Your task to perform on an android device: choose inbox layout in the gmail app Image 0: 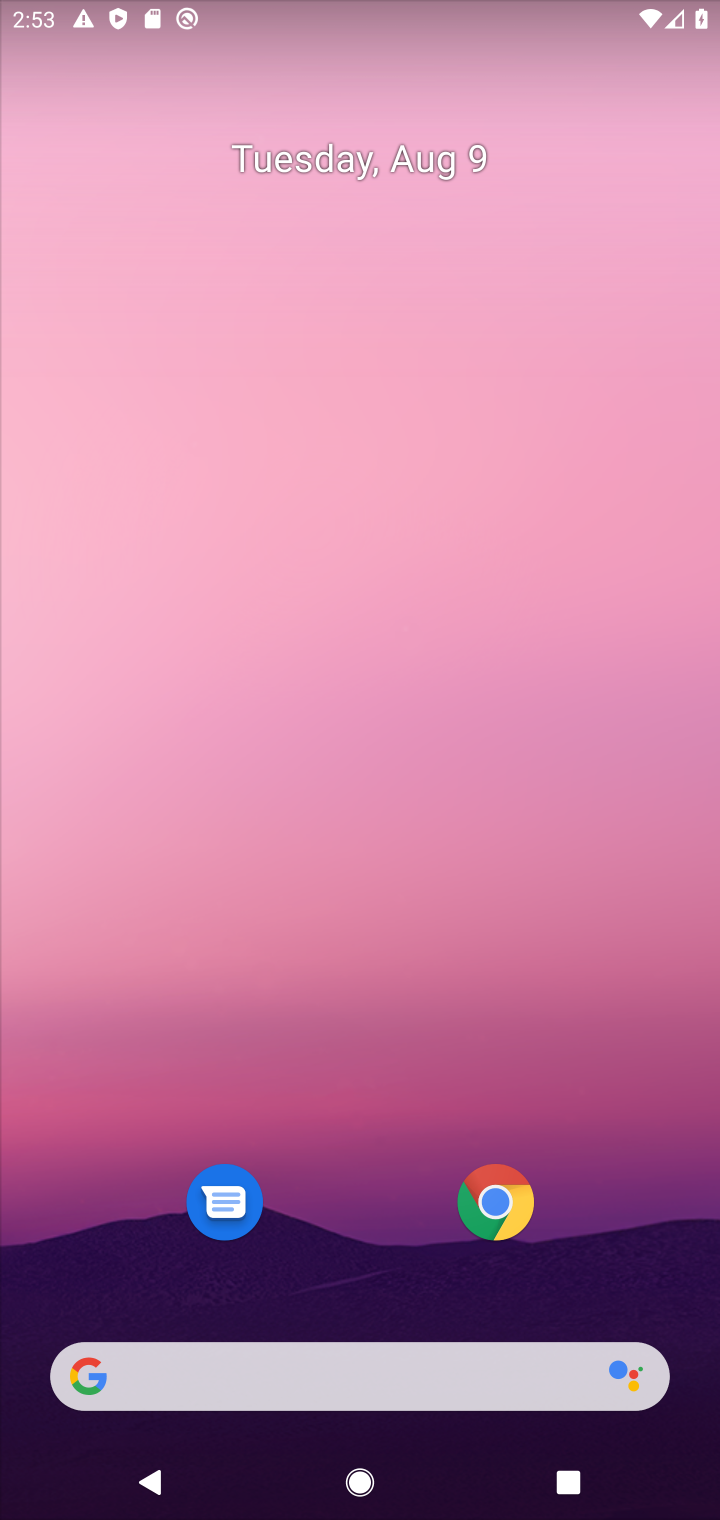
Step 0: press home button
Your task to perform on an android device: choose inbox layout in the gmail app Image 1: 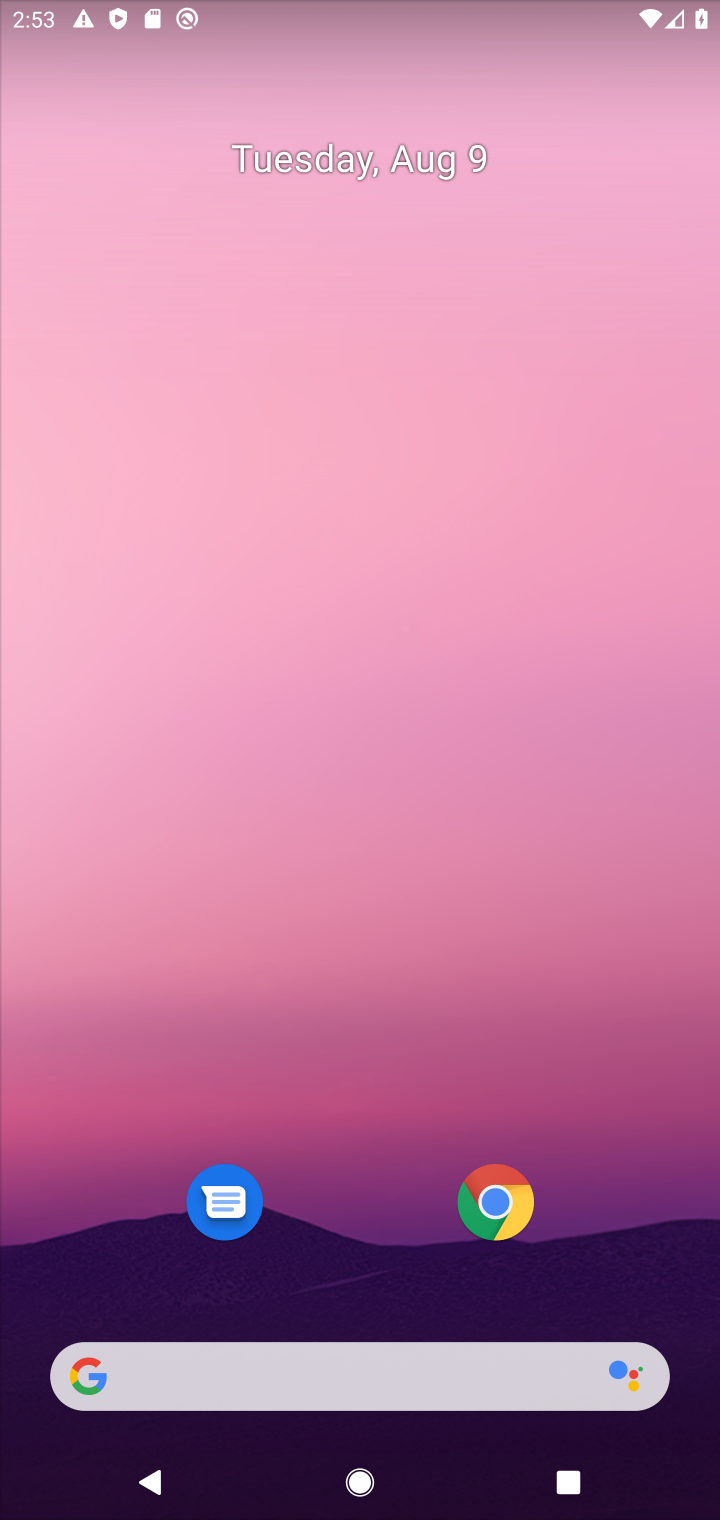
Step 1: click (570, 252)
Your task to perform on an android device: choose inbox layout in the gmail app Image 2: 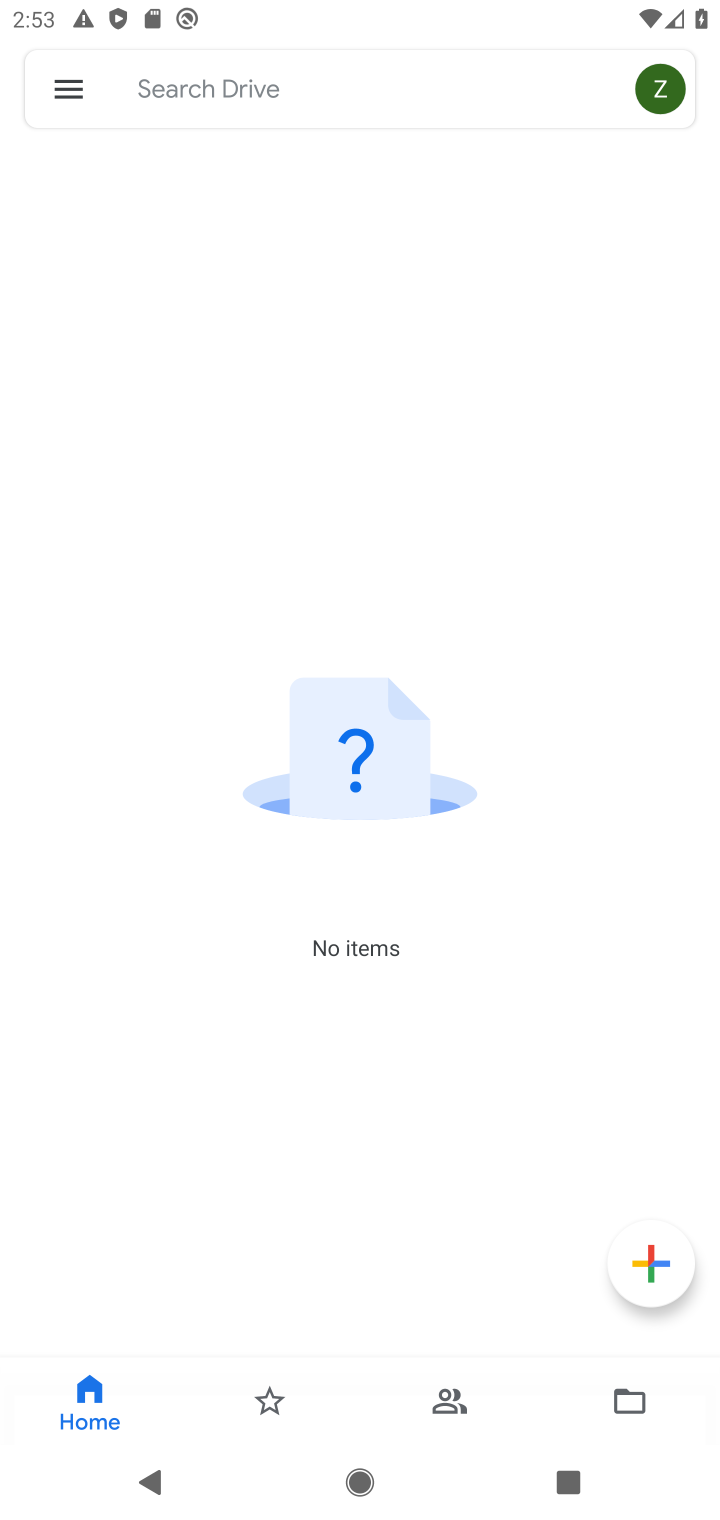
Step 2: drag from (334, 1336) to (373, 493)
Your task to perform on an android device: choose inbox layout in the gmail app Image 3: 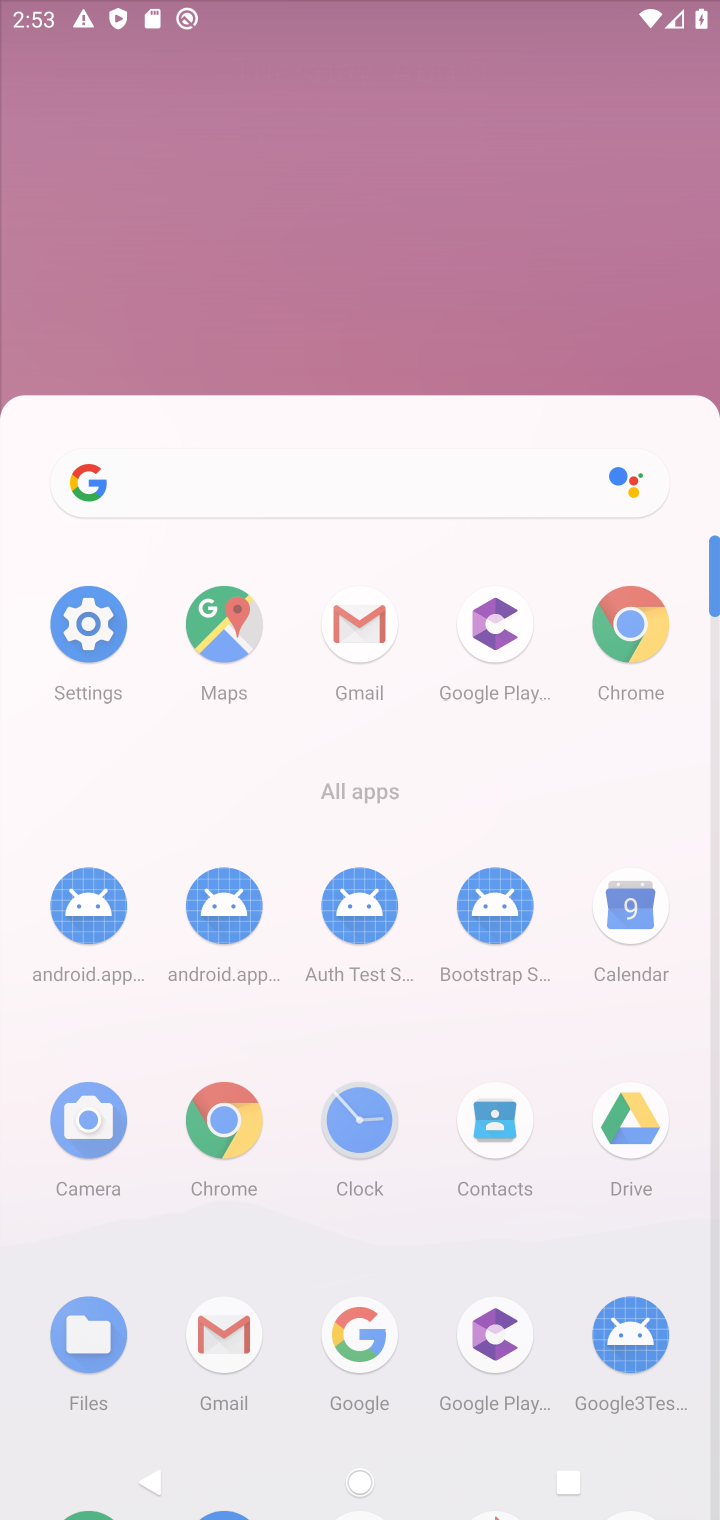
Step 3: press home button
Your task to perform on an android device: choose inbox layout in the gmail app Image 4: 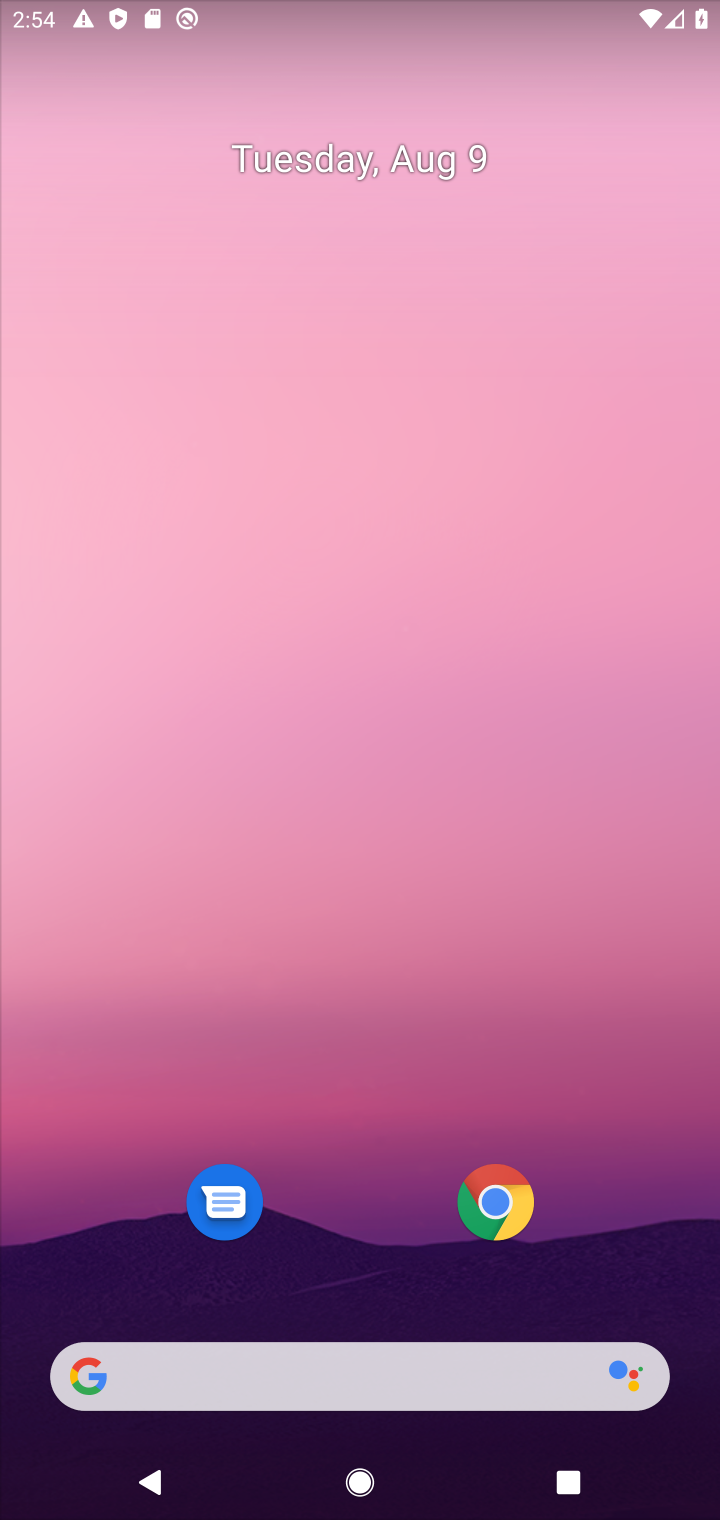
Step 4: drag from (338, 906) to (527, 39)
Your task to perform on an android device: choose inbox layout in the gmail app Image 5: 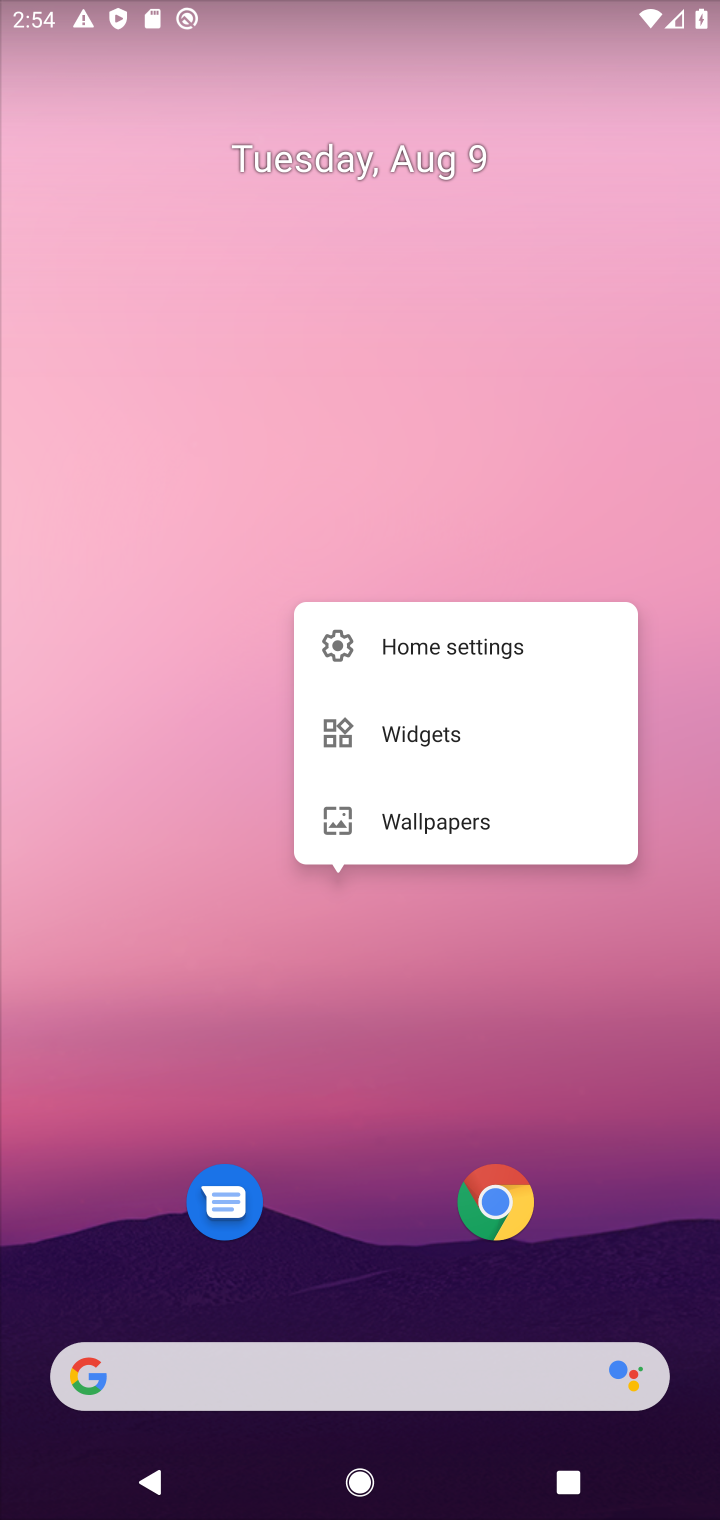
Step 5: drag from (384, 1242) to (353, 229)
Your task to perform on an android device: choose inbox layout in the gmail app Image 6: 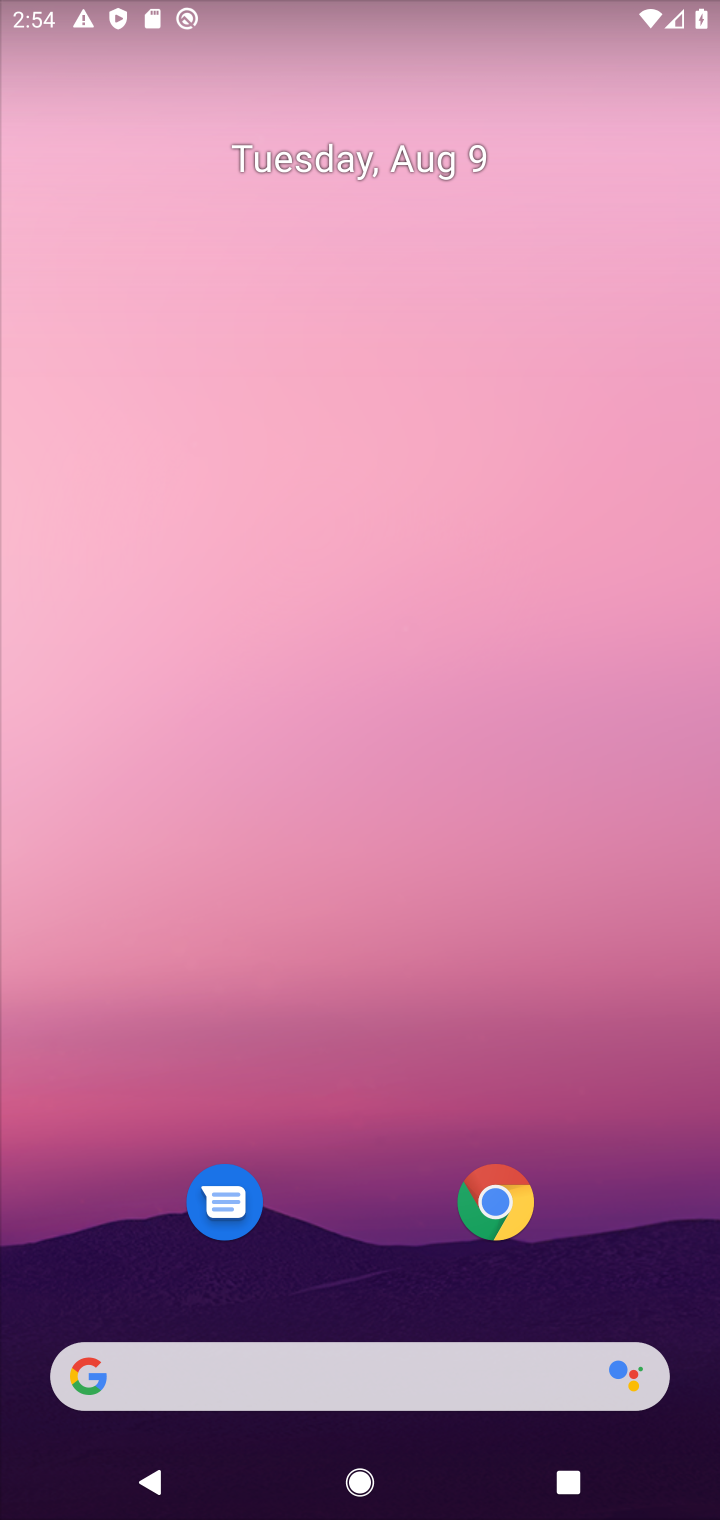
Step 6: drag from (330, 1156) to (343, 348)
Your task to perform on an android device: choose inbox layout in the gmail app Image 7: 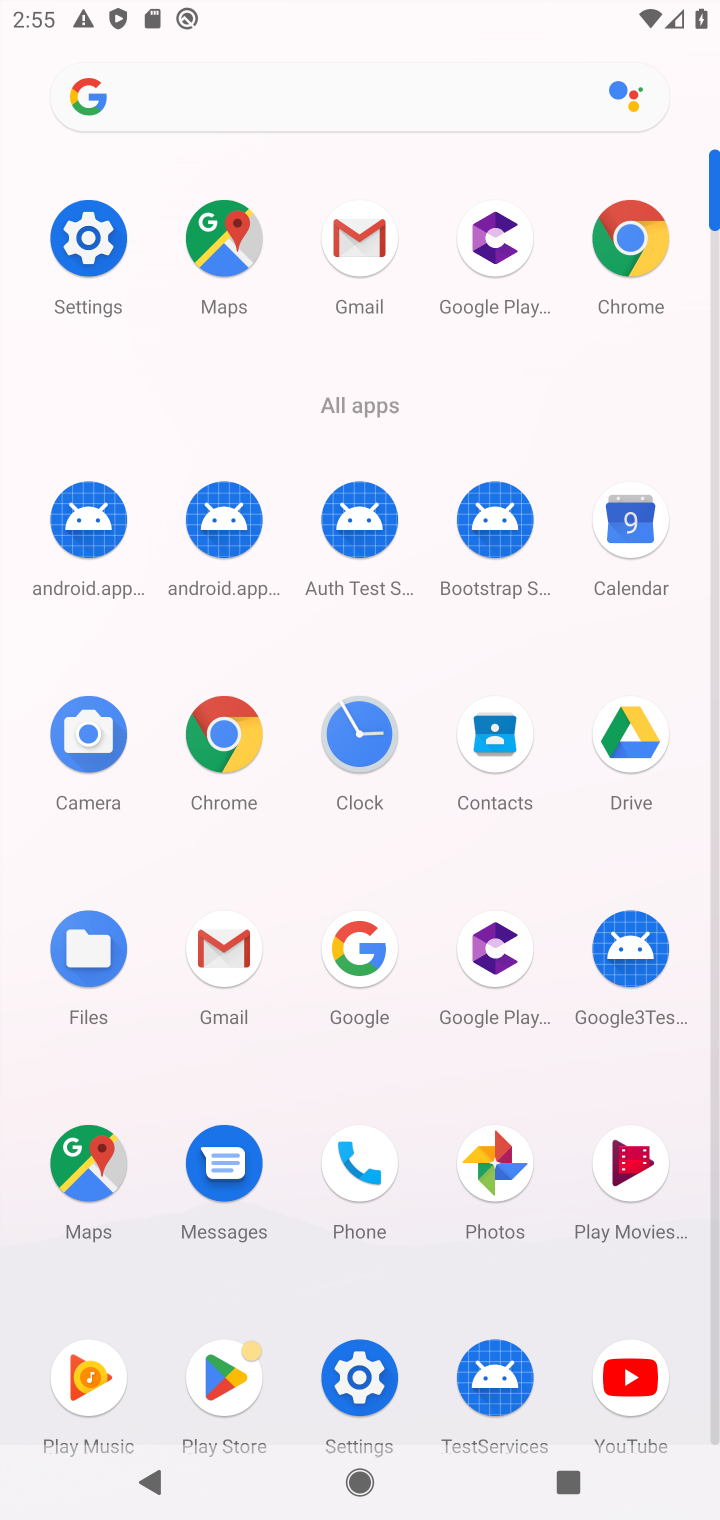
Step 7: click (239, 963)
Your task to perform on an android device: choose inbox layout in the gmail app Image 8: 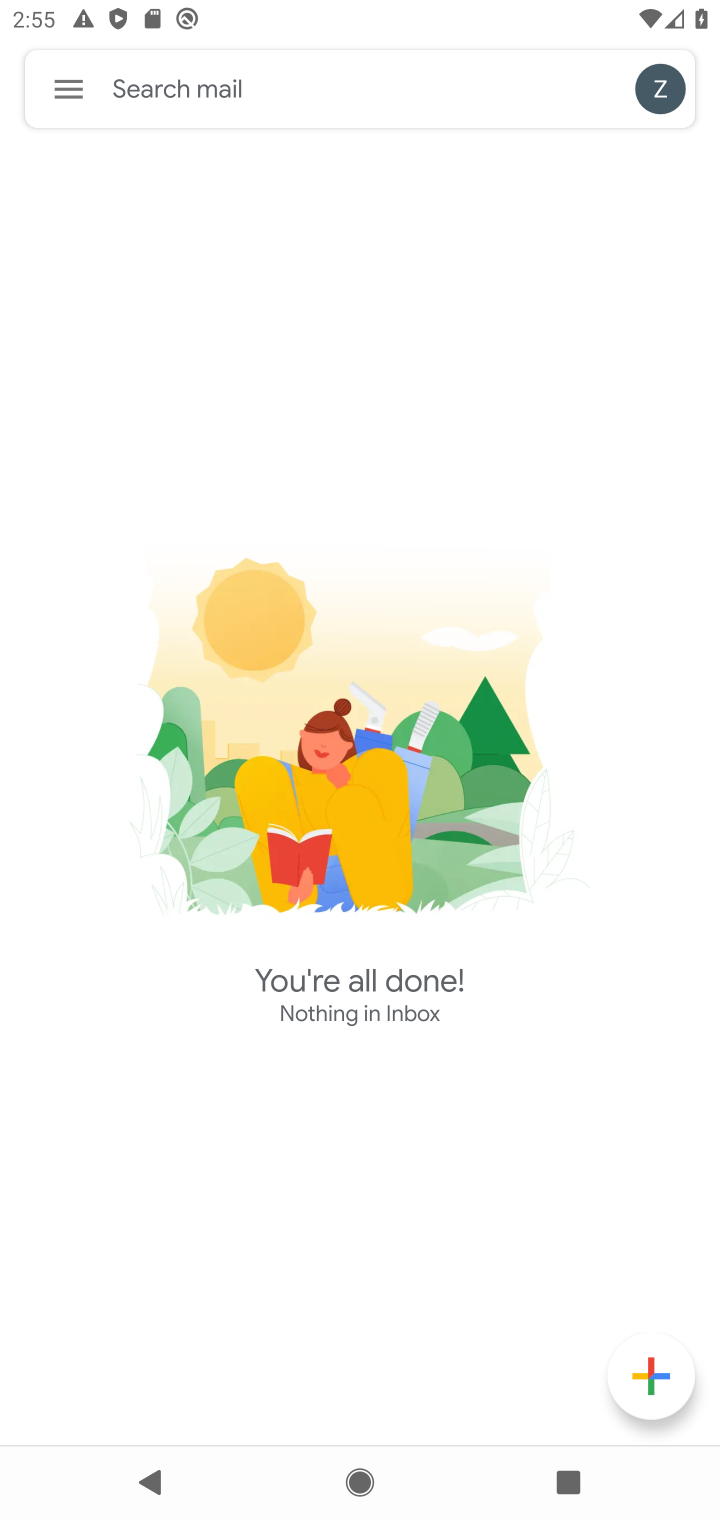
Step 8: click (70, 73)
Your task to perform on an android device: choose inbox layout in the gmail app Image 9: 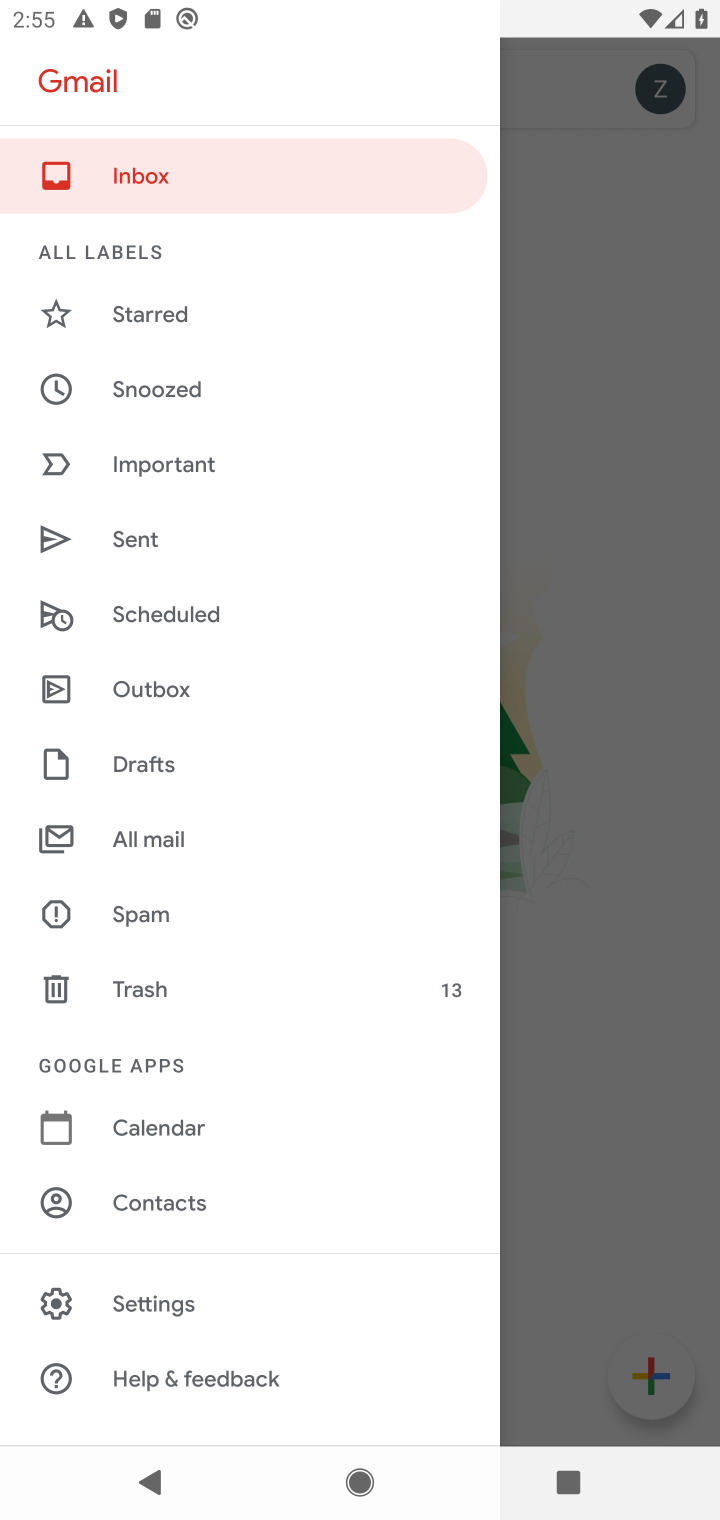
Step 9: click (125, 1291)
Your task to perform on an android device: choose inbox layout in the gmail app Image 10: 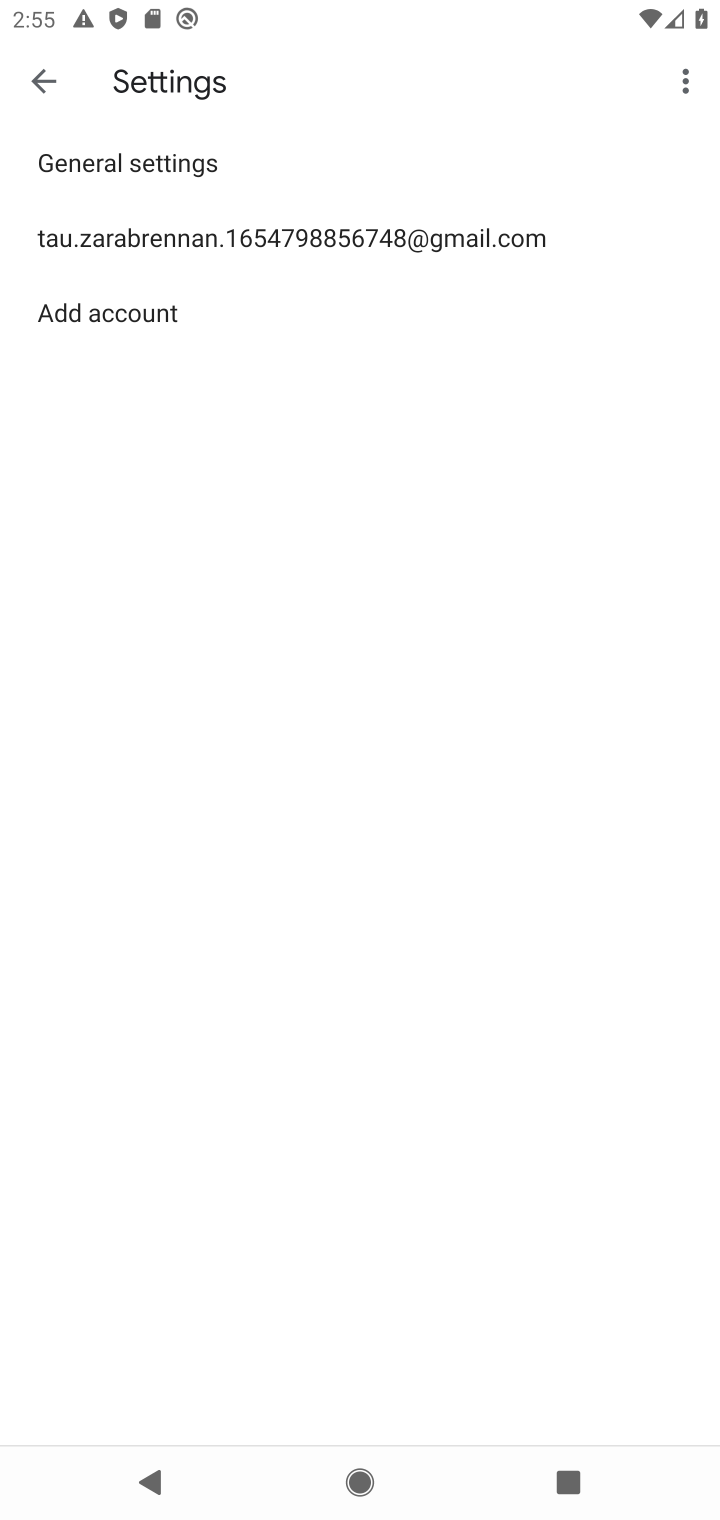
Step 10: click (256, 243)
Your task to perform on an android device: choose inbox layout in the gmail app Image 11: 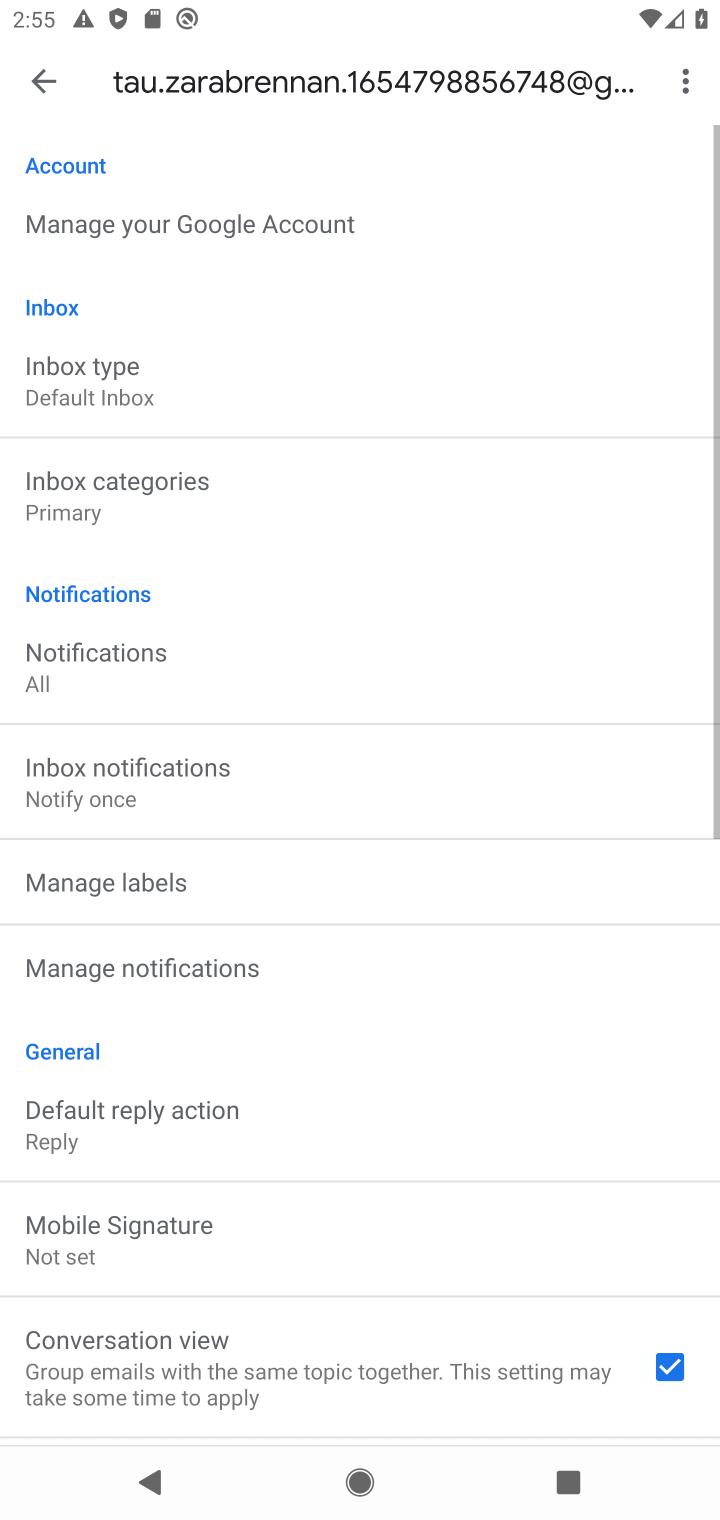
Step 11: click (132, 361)
Your task to perform on an android device: choose inbox layout in the gmail app Image 12: 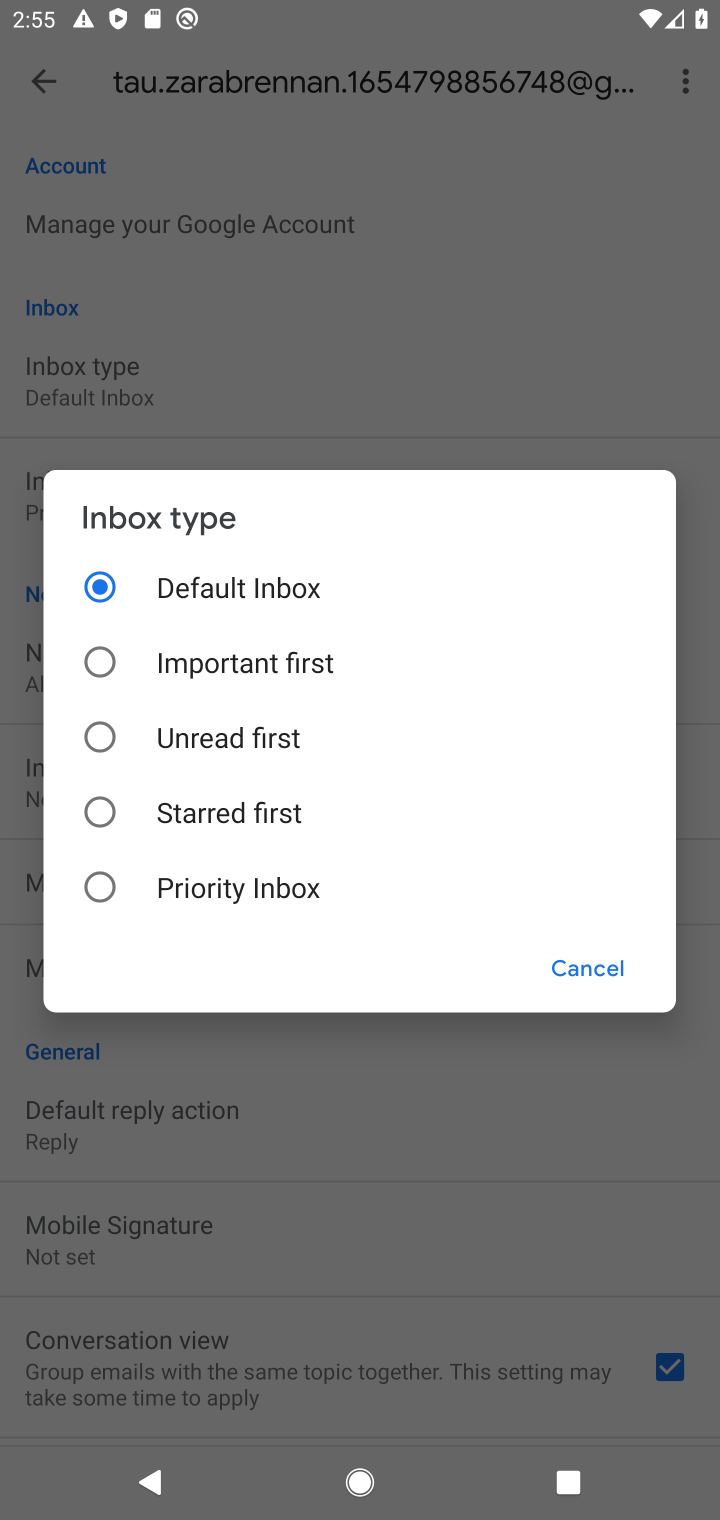
Step 12: click (154, 875)
Your task to perform on an android device: choose inbox layout in the gmail app Image 13: 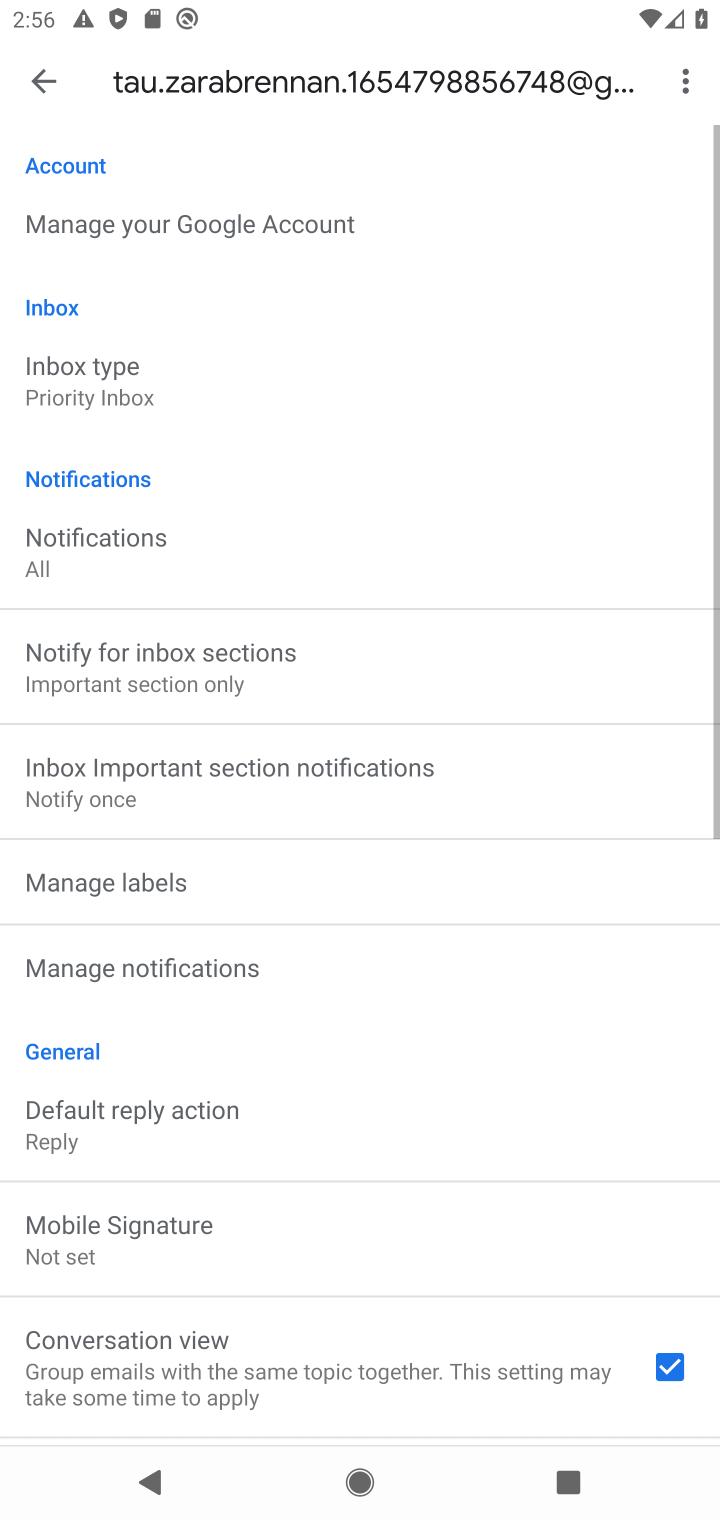
Step 13: task complete